Your task to perform on an android device: turn on sleep mode Image 0: 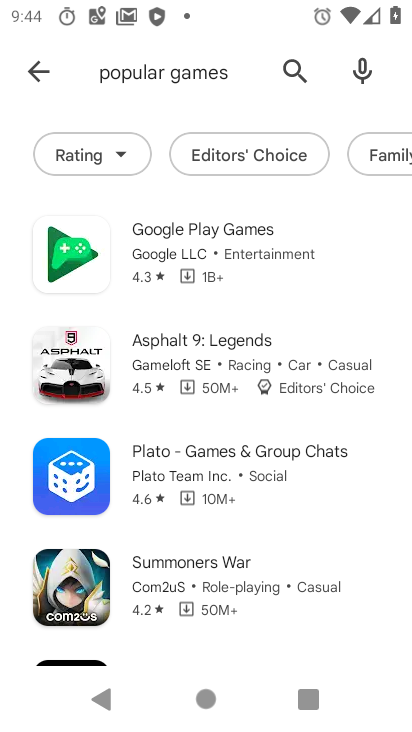
Step 0: press home button
Your task to perform on an android device: turn on sleep mode Image 1: 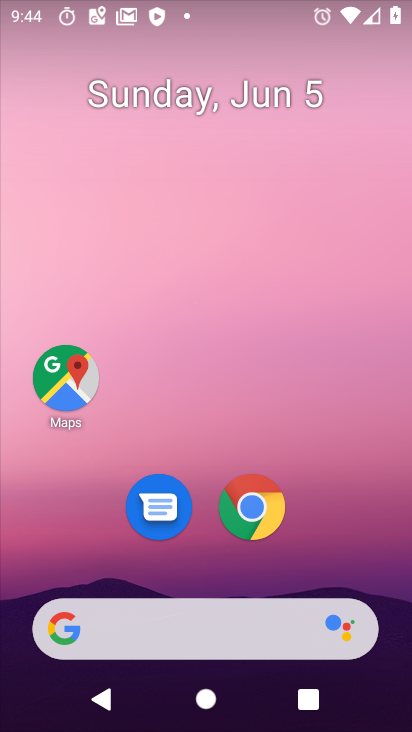
Step 1: drag from (278, 679) to (149, 47)
Your task to perform on an android device: turn on sleep mode Image 2: 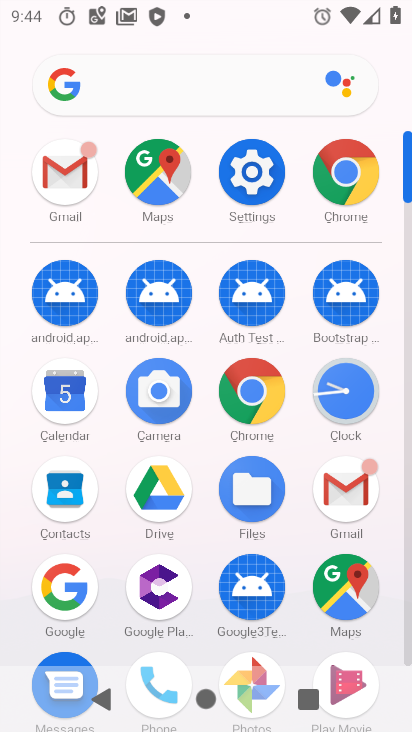
Step 2: click (264, 174)
Your task to perform on an android device: turn on sleep mode Image 3: 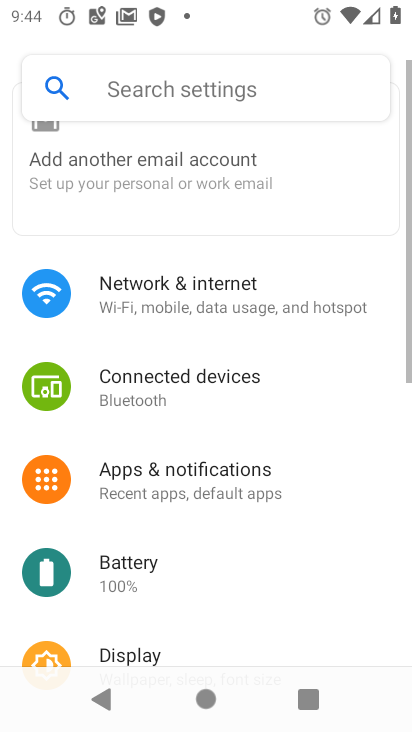
Step 3: click (154, 111)
Your task to perform on an android device: turn on sleep mode Image 4: 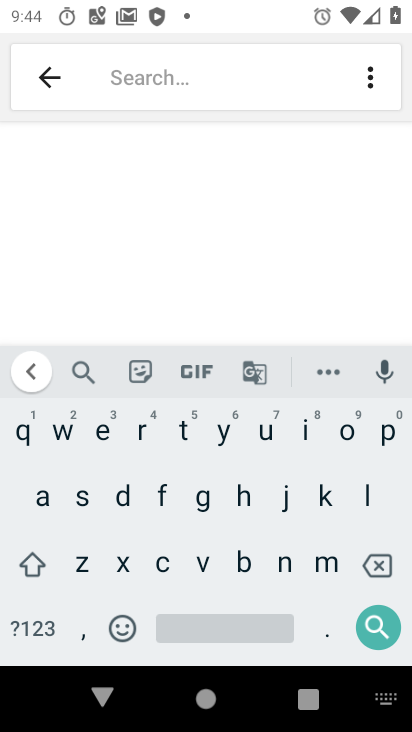
Step 4: click (78, 496)
Your task to perform on an android device: turn on sleep mode Image 5: 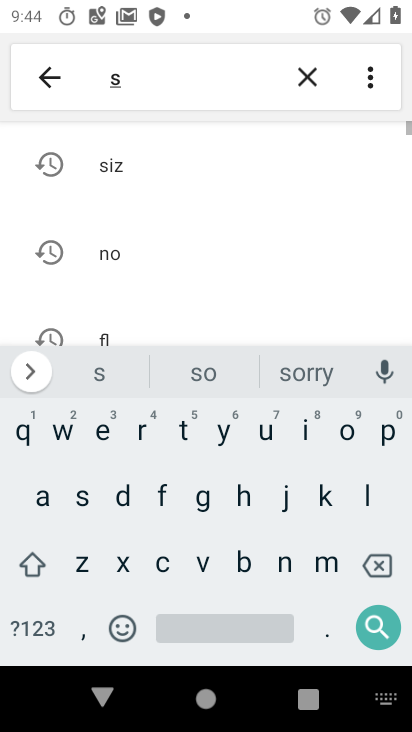
Step 5: click (358, 491)
Your task to perform on an android device: turn on sleep mode Image 6: 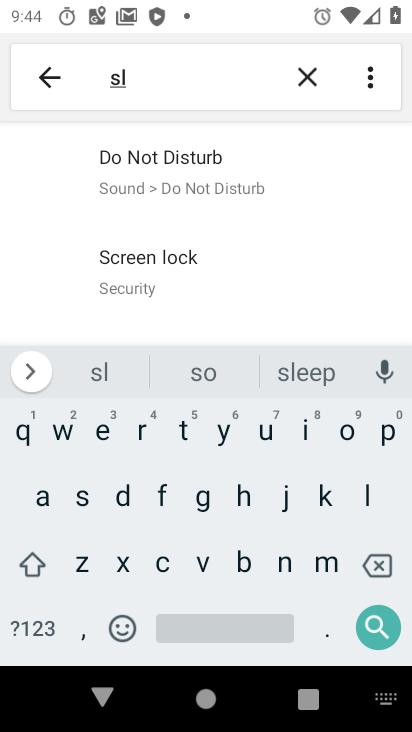
Step 6: click (162, 178)
Your task to perform on an android device: turn on sleep mode Image 7: 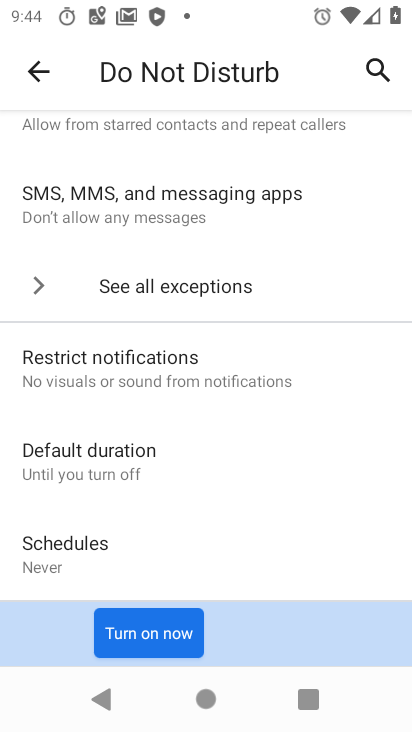
Step 7: click (140, 655)
Your task to perform on an android device: turn on sleep mode Image 8: 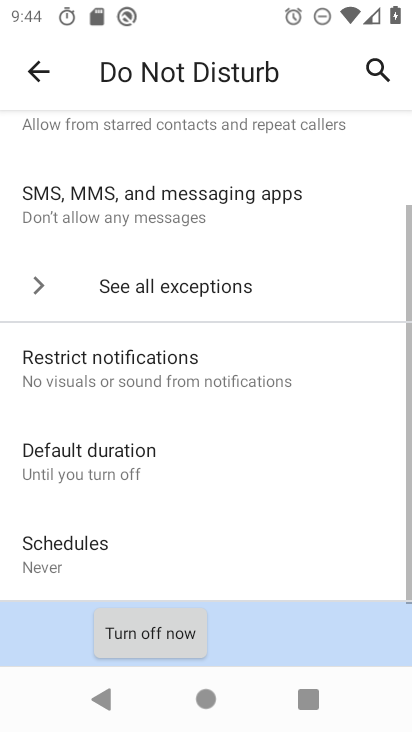
Step 8: click (140, 611)
Your task to perform on an android device: turn on sleep mode Image 9: 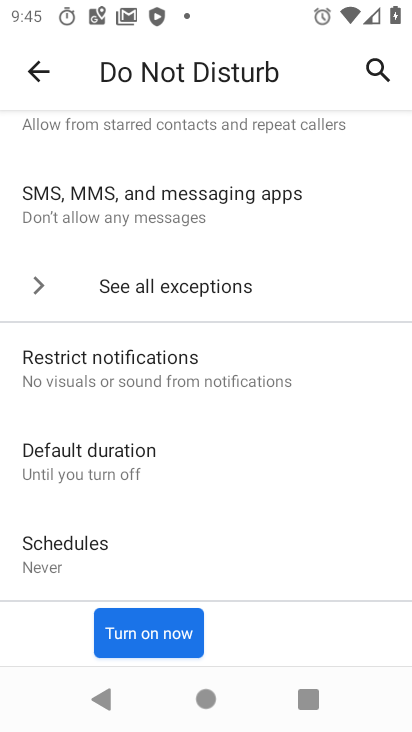
Step 9: task complete